Your task to perform on an android device: Go to Reddit.com Image 0: 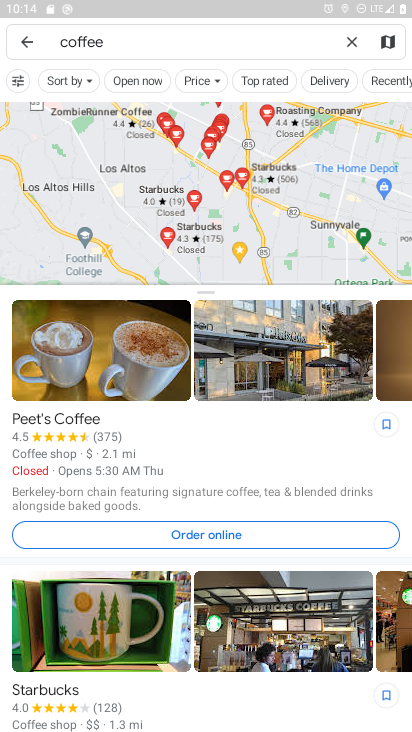
Step 0: press home button
Your task to perform on an android device: Go to Reddit.com Image 1: 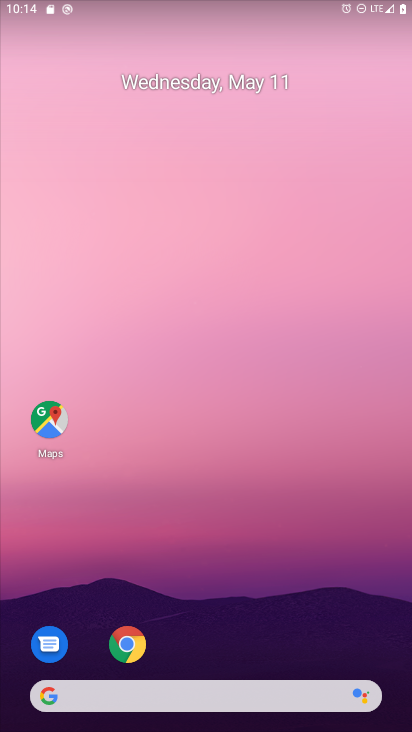
Step 1: click (136, 696)
Your task to perform on an android device: Go to Reddit.com Image 2: 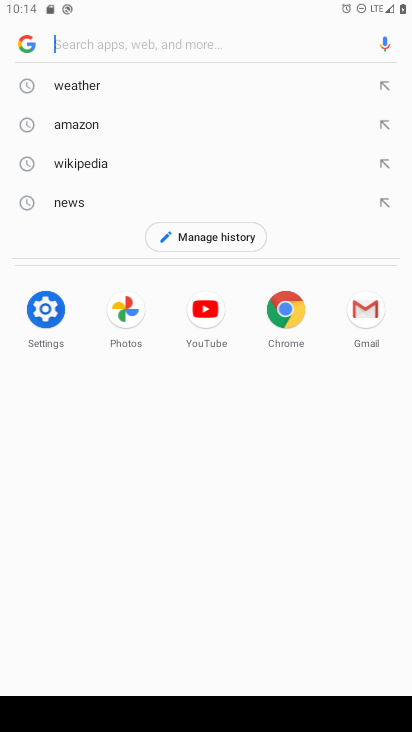
Step 2: type "reddit.com"
Your task to perform on an android device: Go to Reddit.com Image 3: 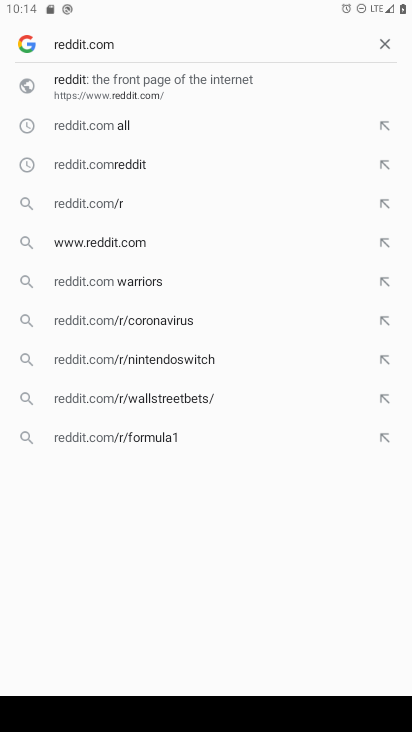
Step 3: click (120, 79)
Your task to perform on an android device: Go to Reddit.com Image 4: 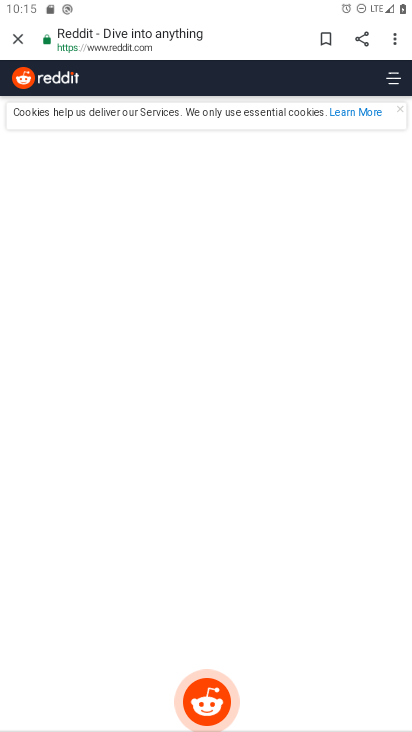
Step 4: task complete